Your task to perform on an android device: Open Android settings Image 0: 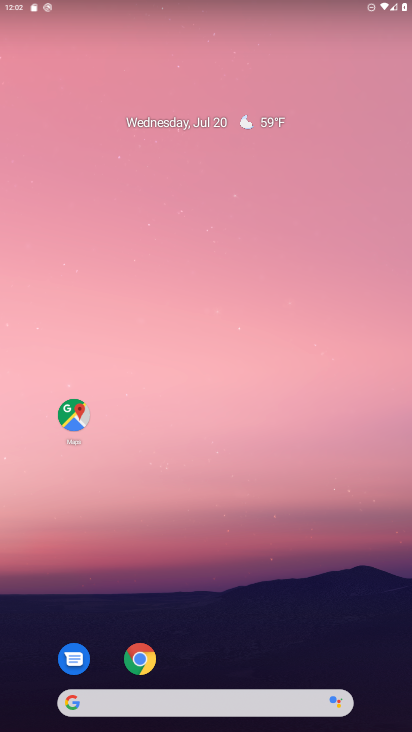
Step 0: drag from (312, 553) to (220, 28)
Your task to perform on an android device: Open Android settings Image 1: 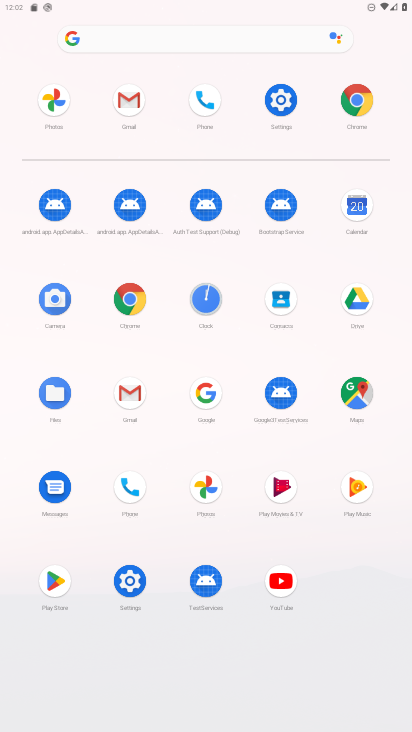
Step 1: click (280, 86)
Your task to perform on an android device: Open Android settings Image 2: 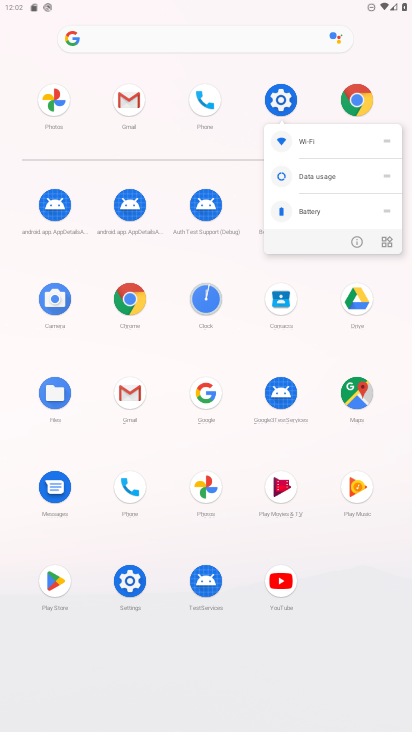
Step 2: click (282, 101)
Your task to perform on an android device: Open Android settings Image 3: 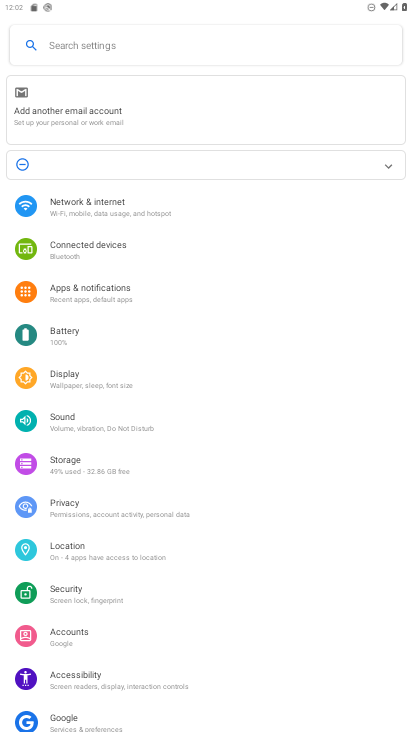
Step 3: task complete